Your task to perform on an android device: find photos in the google photos app Image 0: 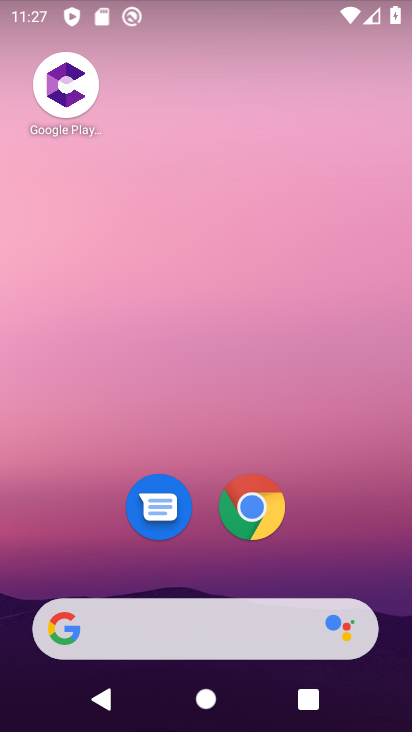
Step 0: drag from (332, 461) to (356, 102)
Your task to perform on an android device: find photos in the google photos app Image 1: 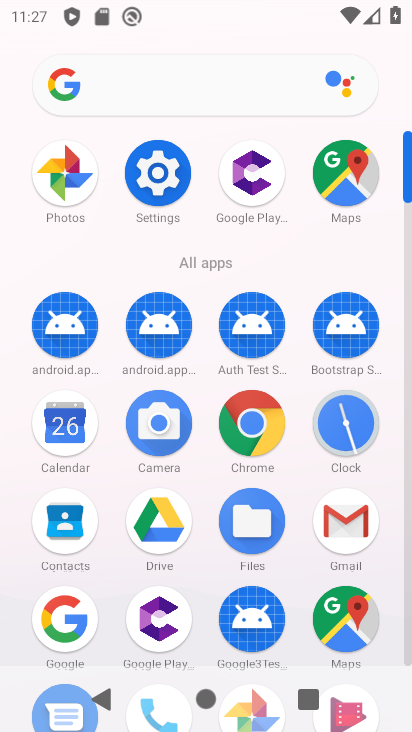
Step 1: drag from (209, 596) to (219, 172)
Your task to perform on an android device: find photos in the google photos app Image 2: 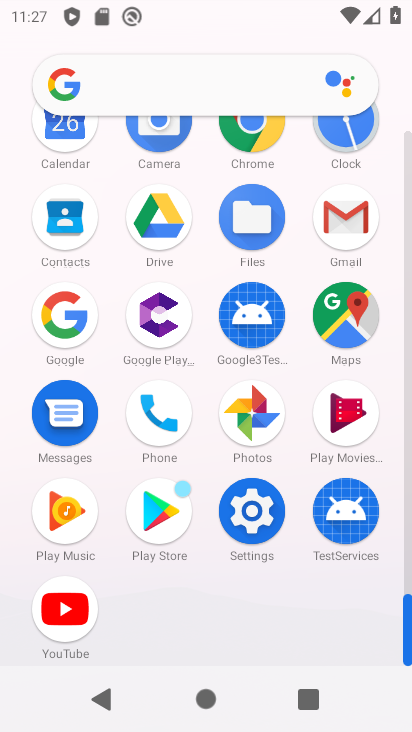
Step 2: click (259, 426)
Your task to perform on an android device: find photos in the google photos app Image 3: 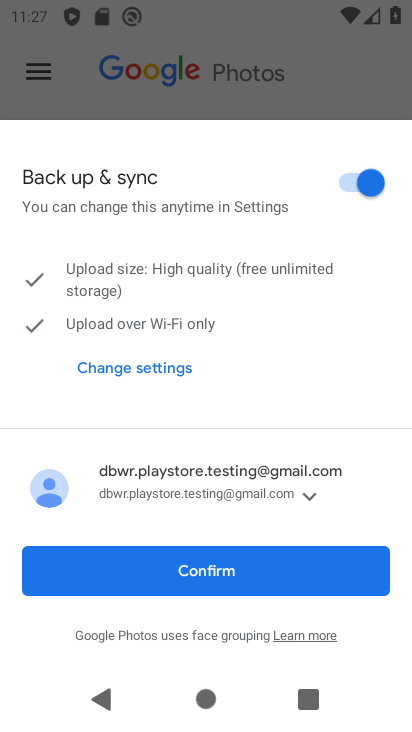
Step 3: click (222, 564)
Your task to perform on an android device: find photos in the google photos app Image 4: 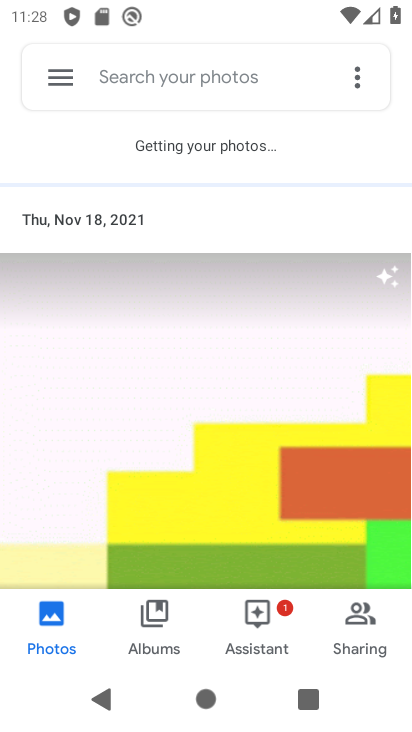
Step 4: task complete